Your task to perform on an android device: Search for the best rated Bluetooth earbuds on Ali express Image 0: 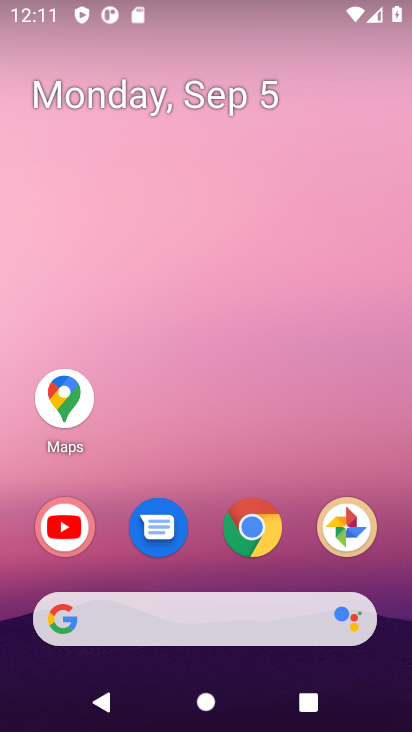
Step 0: click (248, 511)
Your task to perform on an android device: Search for the best rated Bluetooth earbuds on Ali express Image 1: 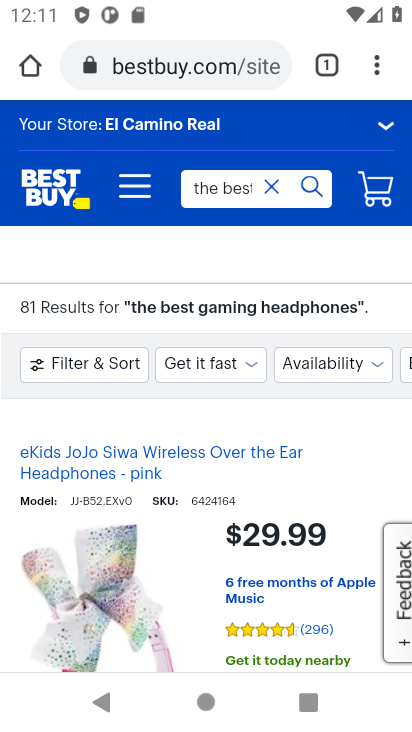
Step 1: click (198, 66)
Your task to perform on an android device: Search for the best rated Bluetooth earbuds on Ali express Image 2: 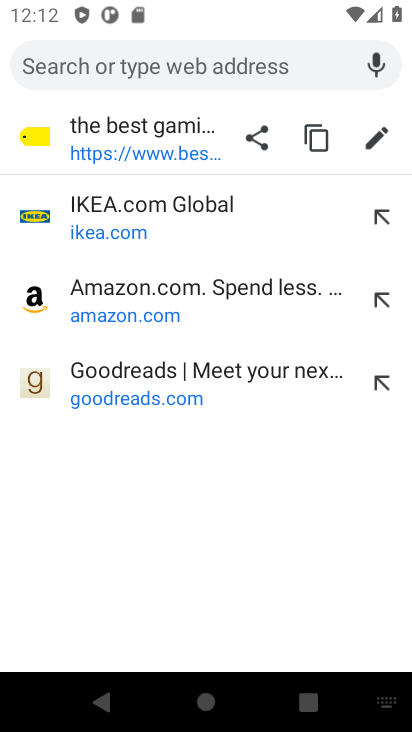
Step 2: type "Ali Express"
Your task to perform on an android device: Search for the best rated Bluetooth earbuds on Ali express Image 3: 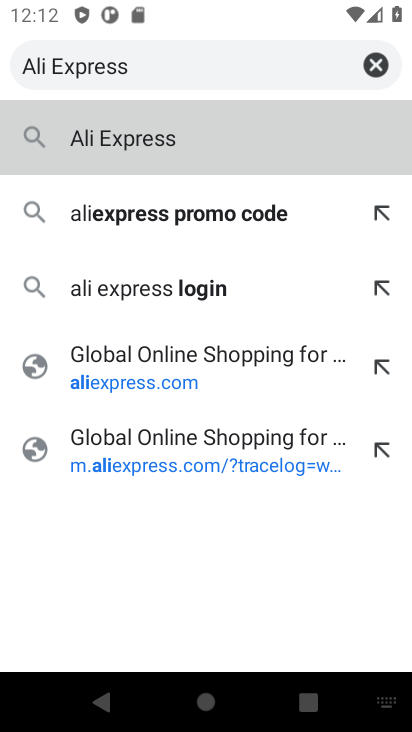
Step 3: click (139, 151)
Your task to perform on an android device: Search for the best rated Bluetooth earbuds on Ali express Image 4: 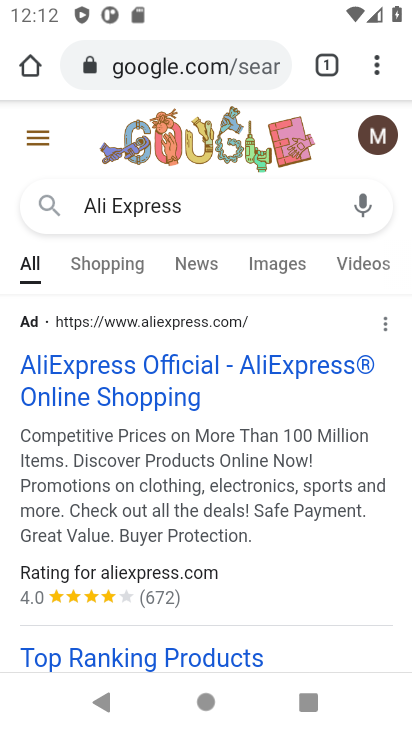
Step 4: click (172, 370)
Your task to perform on an android device: Search for the best rated Bluetooth earbuds on Ali express Image 5: 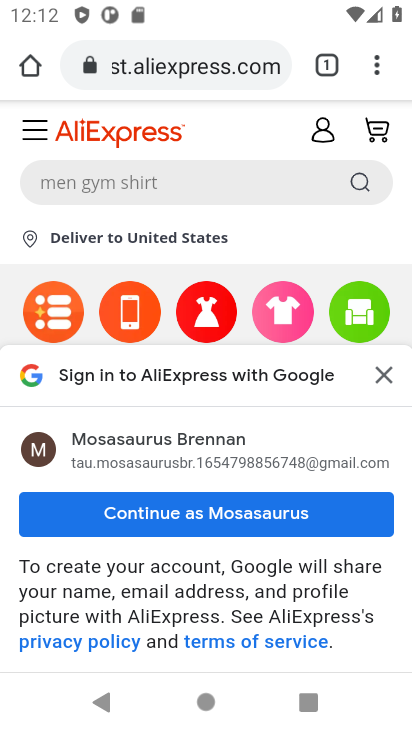
Step 5: click (253, 520)
Your task to perform on an android device: Search for the best rated Bluetooth earbuds on Ali express Image 6: 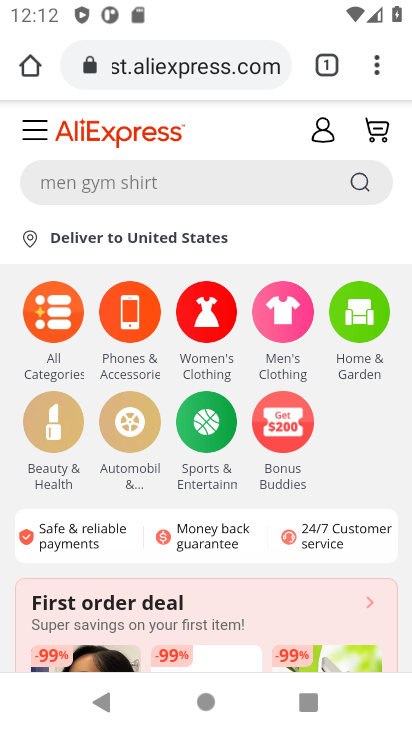
Step 6: click (187, 169)
Your task to perform on an android device: Search for the best rated Bluetooth earbuds on Ali express Image 7: 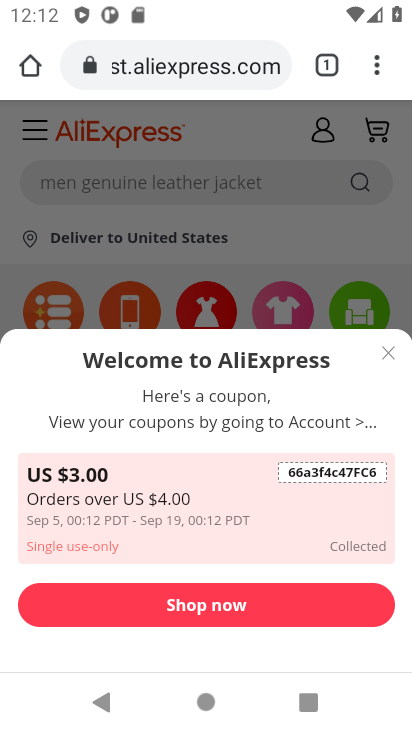
Step 7: drag from (388, 725) to (338, 701)
Your task to perform on an android device: Search for the best rated Bluetooth earbuds on Ali express Image 8: 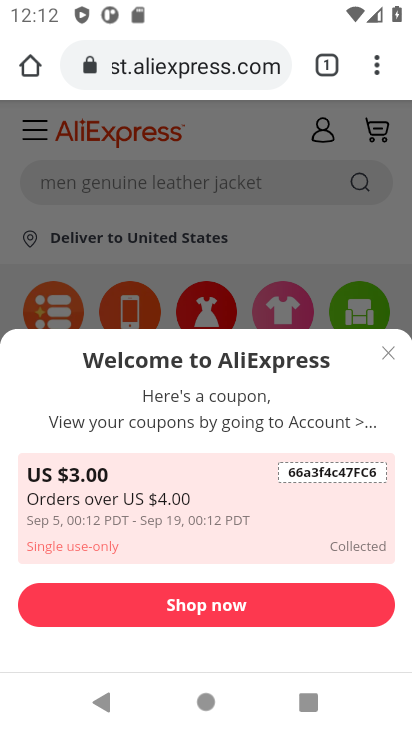
Step 8: type "the best rated Bluetooth earbuds"
Your task to perform on an android device: Search for the best rated Bluetooth earbuds on Ali express Image 9: 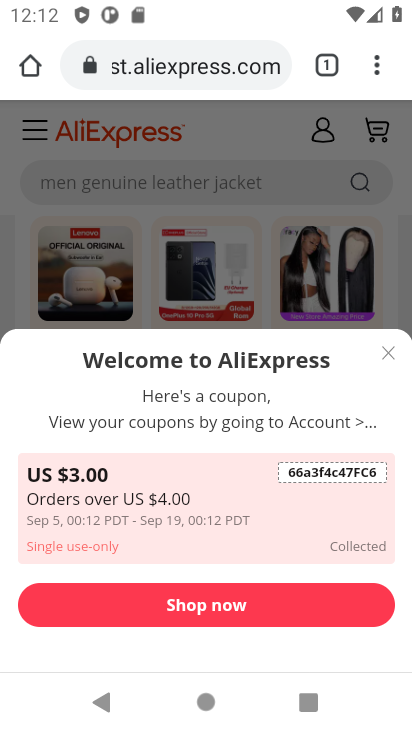
Step 9: click (387, 342)
Your task to perform on an android device: Search for the best rated Bluetooth earbuds on Ali express Image 10: 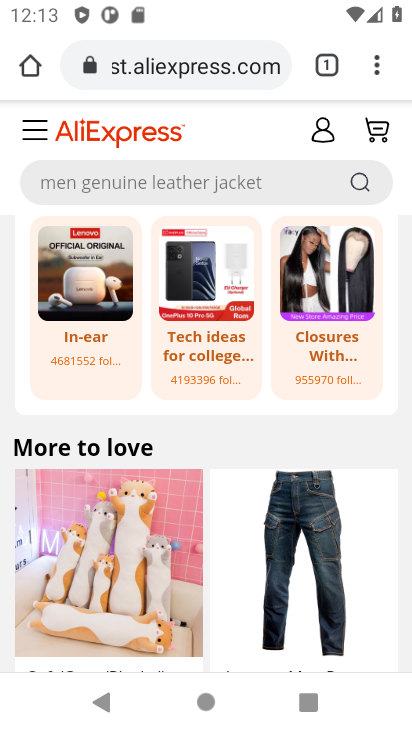
Step 10: click (229, 181)
Your task to perform on an android device: Search for the best rated Bluetooth earbuds on Ali express Image 11: 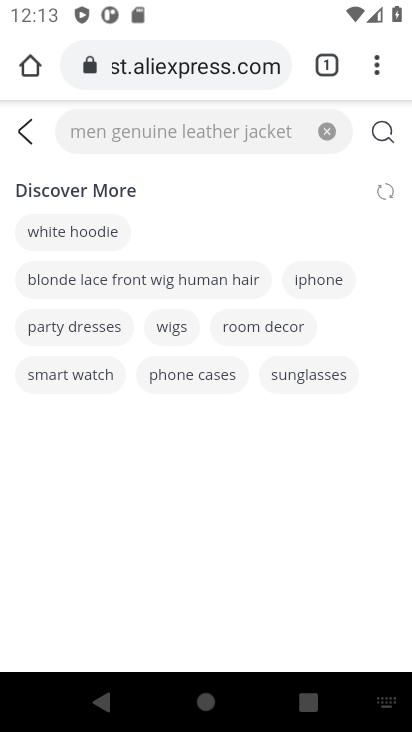
Step 11: type "the best rated Bluetooth earbuds "
Your task to perform on an android device: Search for the best rated Bluetooth earbuds on Ali express Image 12: 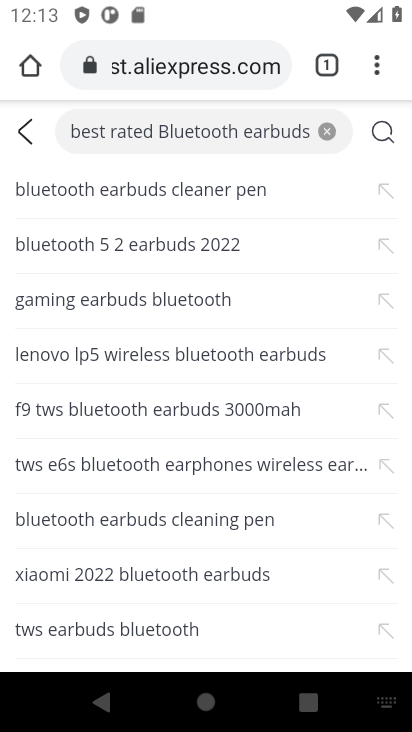
Step 12: click (380, 120)
Your task to perform on an android device: Search for the best rated Bluetooth earbuds on Ali express Image 13: 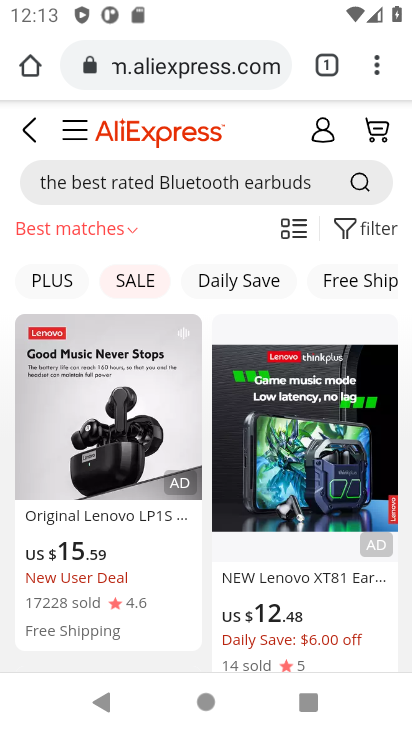
Step 13: click (357, 182)
Your task to perform on an android device: Search for the best rated Bluetooth earbuds on Ali express Image 14: 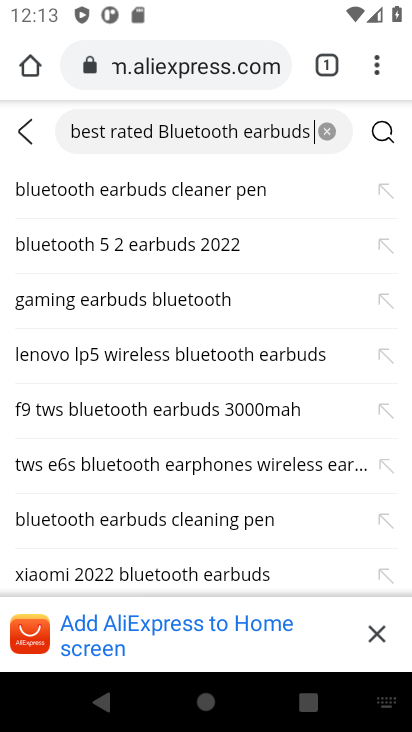
Step 14: click (385, 131)
Your task to perform on an android device: Search for the best rated Bluetooth earbuds on Ali express Image 15: 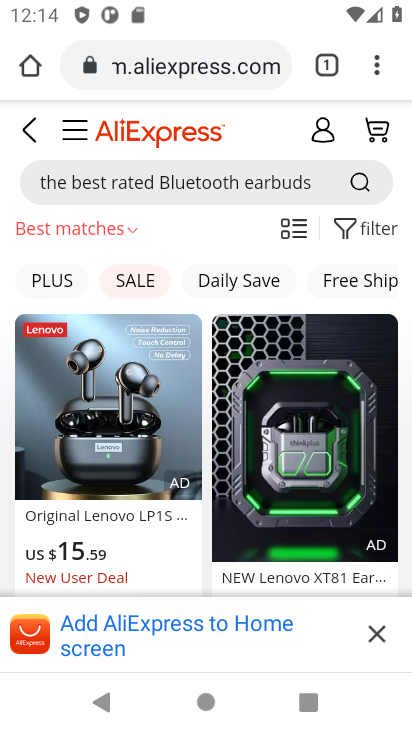
Step 15: task complete